Your task to perform on an android device: remove spam from my inbox in the gmail app Image 0: 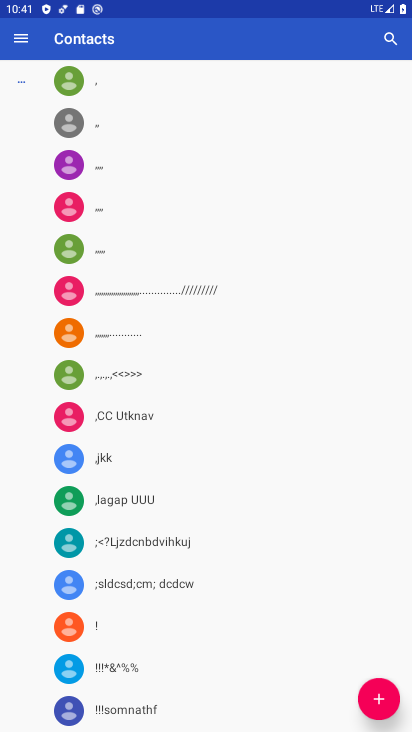
Step 0: press home button
Your task to perform on an android device: remove spam from my inbox in the gmail app Image 1: 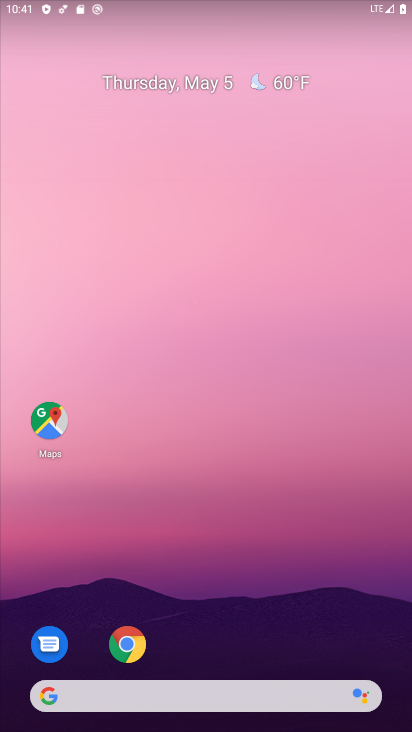
Step 1: drag from (322, 623) to (337, 199)
Your task to perform on an android device: remove spam from my inbox in the gmail app Image 2: 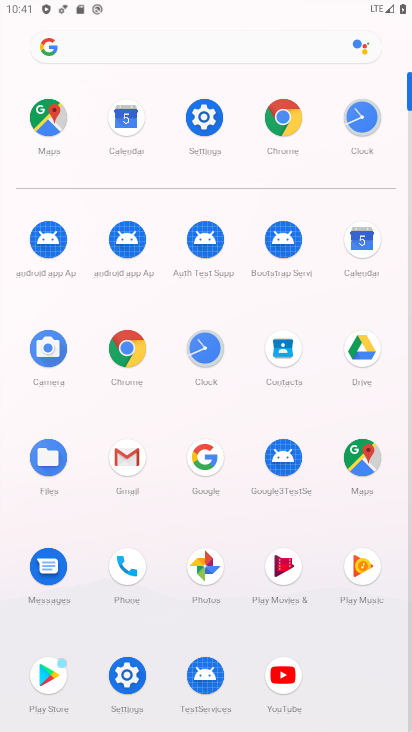
Step 2: click (118, 465)
Your task to perform on an android device: remove spam from my inbox in the gmail app Image 3: 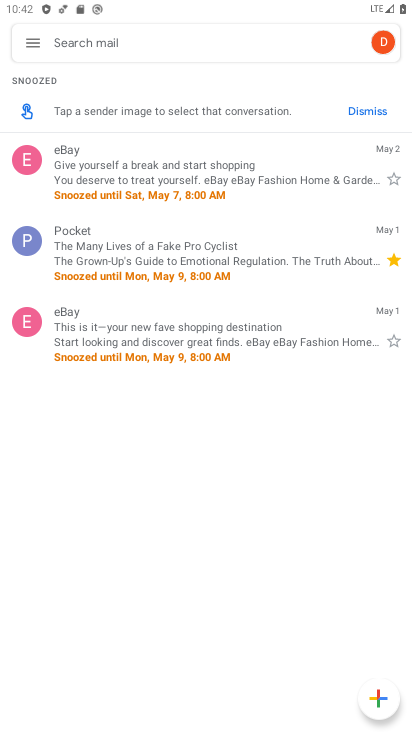
Step 3: click (25, 40)
Your task to perform on an android device: remove spam from my inbox in the gmail app Image 4: 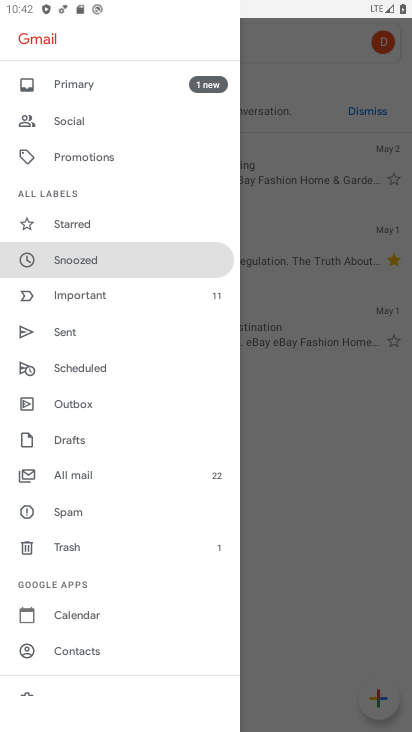
Step 4: click (86, 512)
Your task to perform on an android device: remove spam from my inbox in the gmail app Image 5: 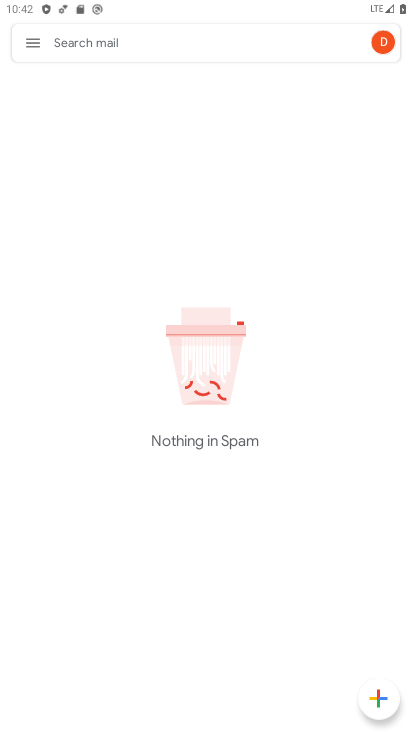
Step 5: task complete